Your task to perform on an android device: open app "McDonald's" (install if not already installed) and go to login screen Image 0: 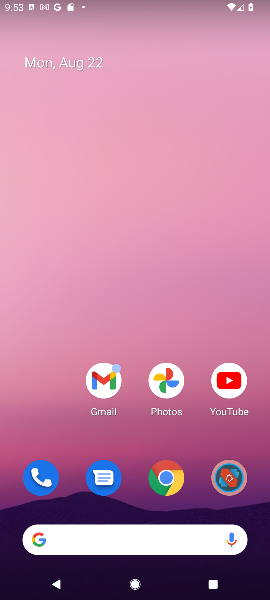
Step 0: drag from (134, 516) to (90, 113)
Your task to perform on an android device: open app "McDonald's" (install if not already installed) and go to login screen Image 1: 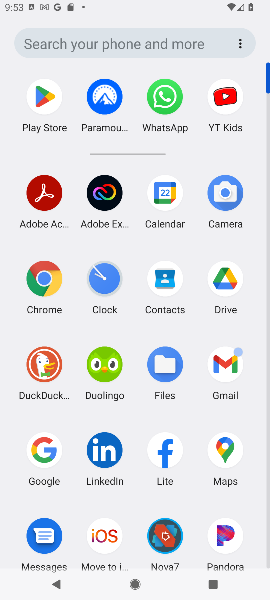
Step 1: click (36, 100)
Your task to perform on an android device: open app "McDonald's" (install if not already installed) and go to login screen Image 2: 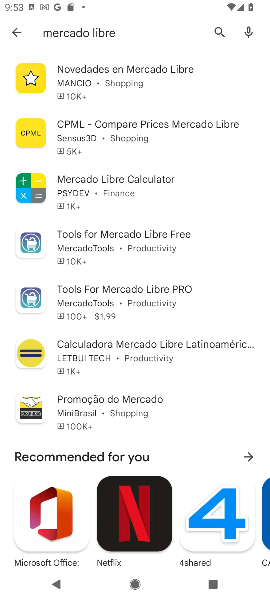
Step 2: click (220, 33)
Your task to perform on an android device: open app "McDonald's" (install if not already installed) and go to login screen Image 3: 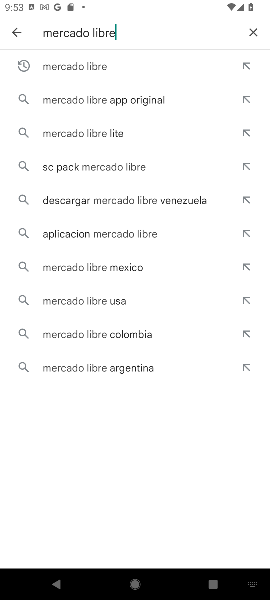
Step 3: click (244, 31)
Your task to perform on an android device: open app "McDonald's" (install if not already installed) and go to login screen Image 4: 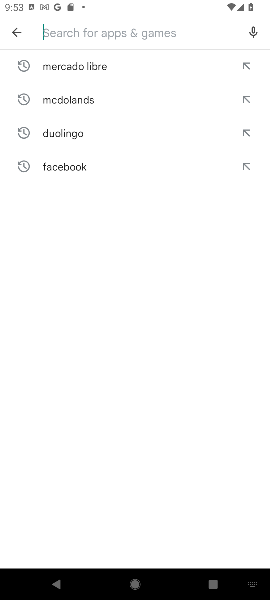
Step 4: type "mcdoland"
Your task to perform on an android device: open app "McDonald's" (install if not already installed) and go to login screen Image 5: 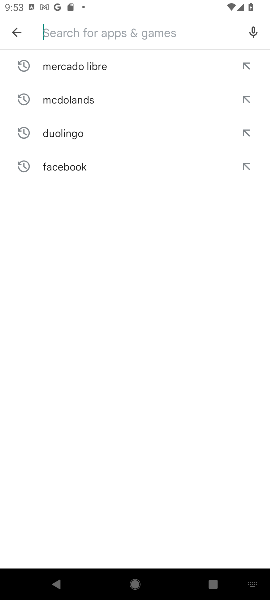
Step 5: click (128, 71)
Your task to perform on an android device: open app "McDonald's" (install if not already installed) and go to login screen Image 6: 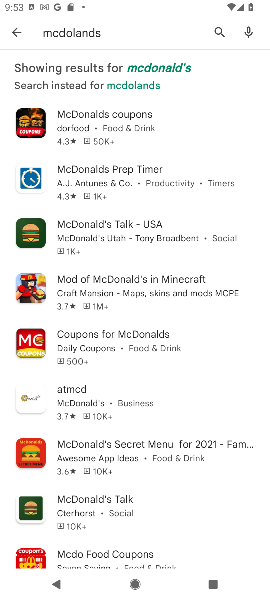
Step 6: click (160, 61)
Your task to perform on an android device: open app "McDonald's" (install if not already installed) and go to login screen Image 7: 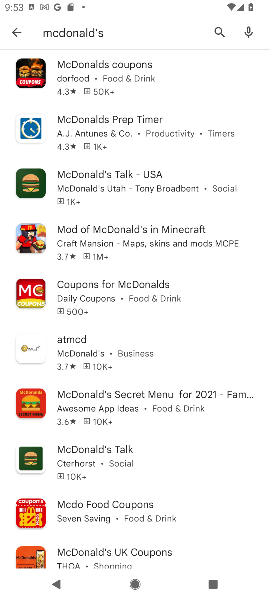
Step 7: task complete